Your task to perform on an android device: Search for vegetarian restaurants on Maps Image 0: 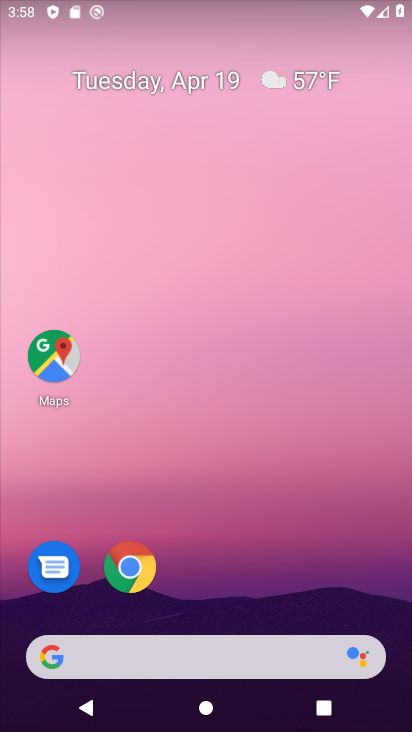
Step 0: drag from (182, 618) to (336, 16)
Your task to perform on an android device: Search for vegetarian restaurants on Maps Image 1: 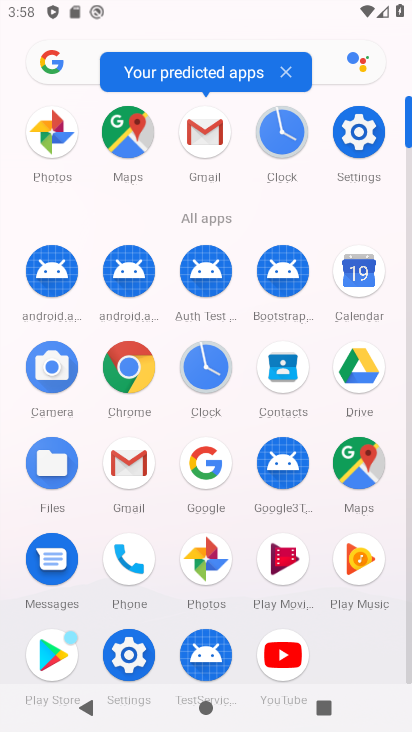
Step 1: click (119, 140)
Your task to perform on an android device: Search for vegetarian restaurants on Maps Image 2: 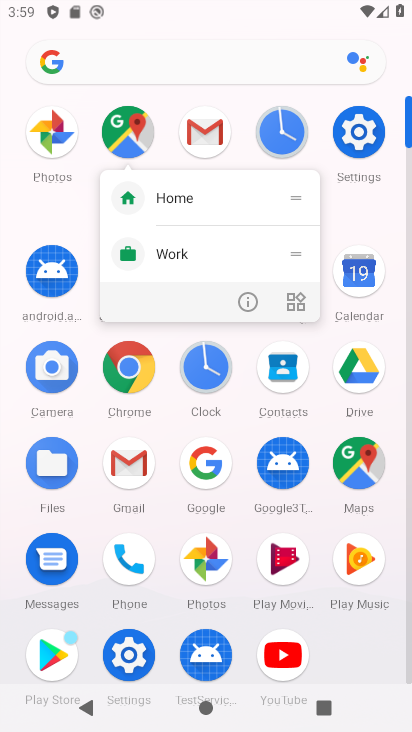
Step 2: click (111, 131)
Your task to perform on an android device: Search for vegetarian restaurants on Maps Image 3: 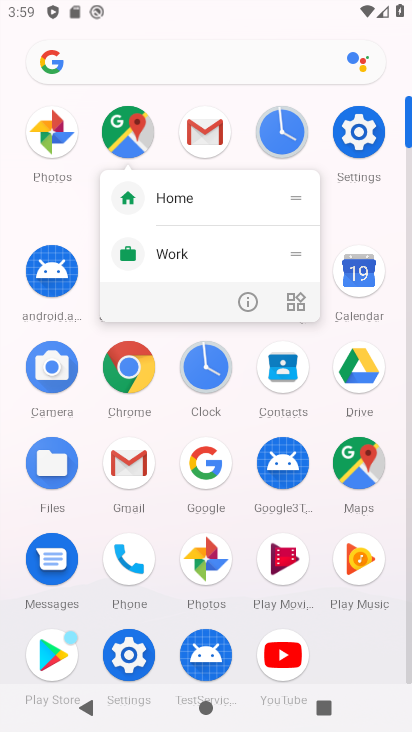
Step 3: click (132, 140)
Your task to perform on an android device: Search for vegetarian restaurants on Maps Image 4: 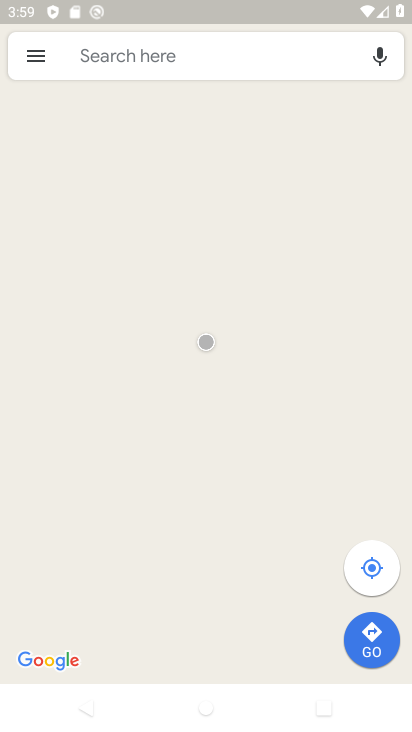
Step 4: click (237, 59)
Your task to perform on an android device: Search for vegetarian restaurants on Maps Image 5: 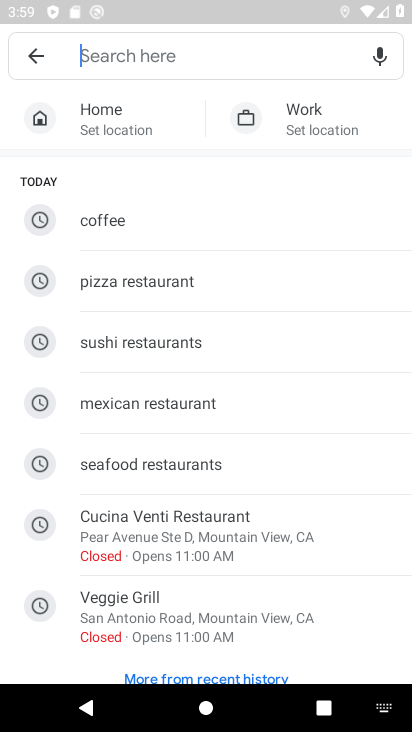
Step 5: type "vegetarian restaurants"
Your task to perform on an android device: Search for vegetarian restaurants on Maps Image 6: 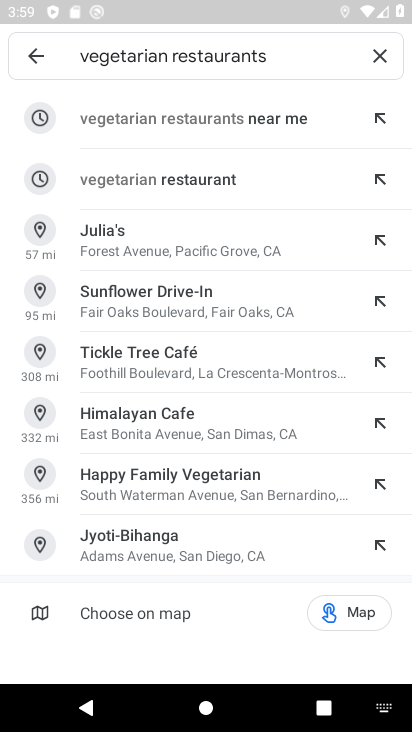
Step 6: click (171, 184)
Your task to perform on an android device: Search for vegetarian restaurants on Maps Image 7: 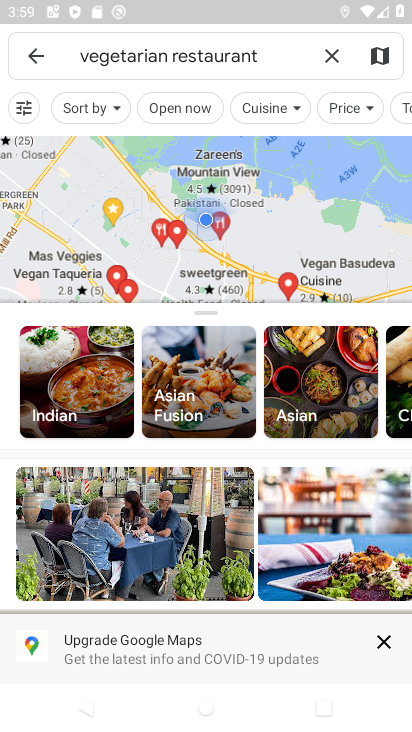
Step 7: click (389, 646)
Your task to perform on an android device: Search for vegetarian restaurants on Maps Image 8: 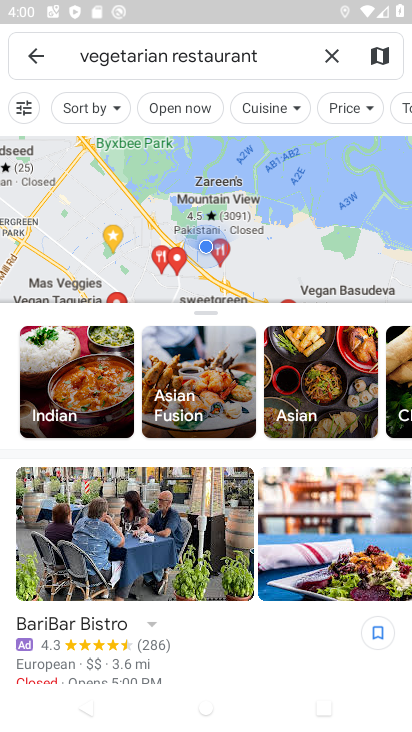
Step 8: task complete